Your task to perform on an android device: turn notification dots on Image 0: 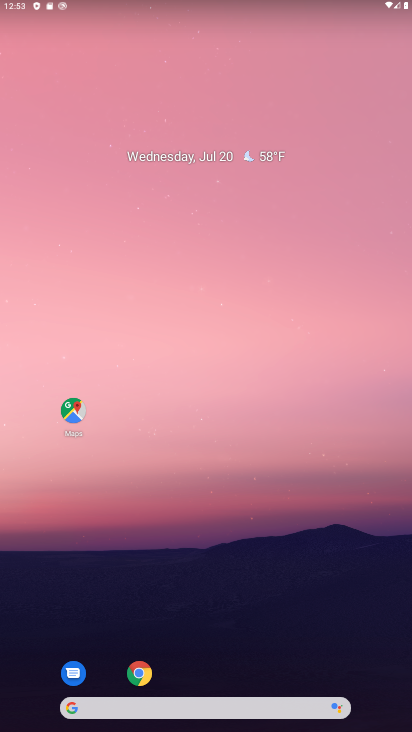
Step 0: drag from (327, 586) to (350, 203)
Your task to perform on an android device: turn notification dots on Image 1: 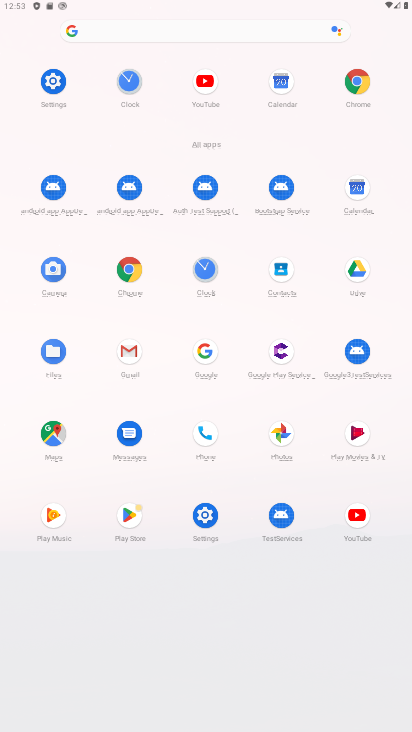
Step 1: click (205, 525)
Your task to perform on an android device: turn notification dots on Image 2: 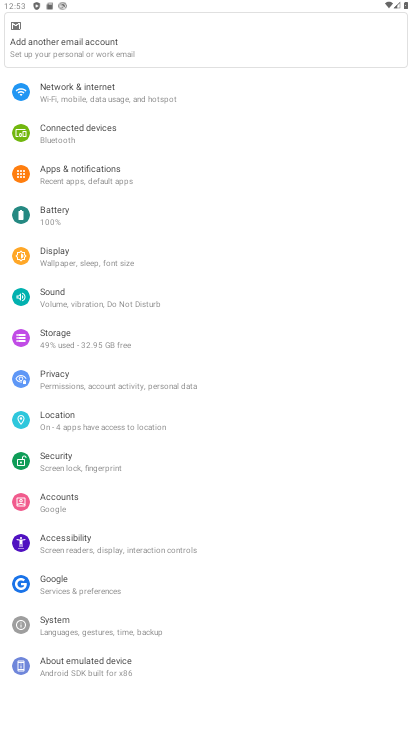
Step 2: click (79, 171)
Your task to perform on an android device: turn notification dots on Image 3: 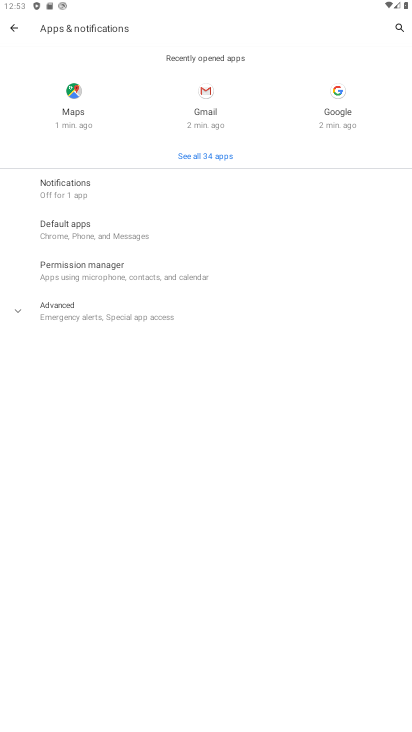
Step 3: click (87, 179)
Your task to perform on an android device: turn notification dots on Image 4: 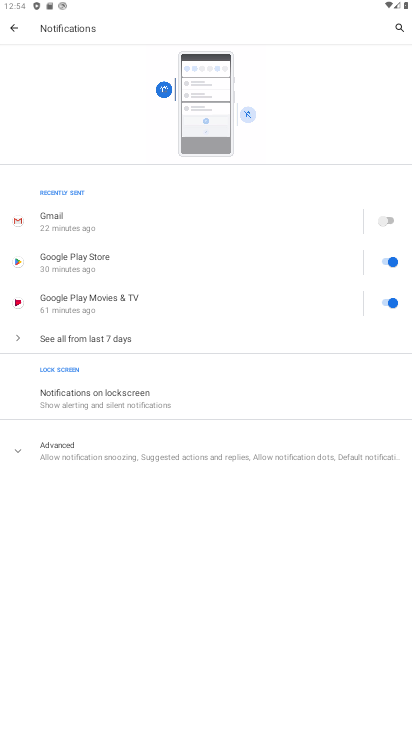
Step 4: click (186, 449)
Your task to perform on an android device: turn notification dots on Image 5: 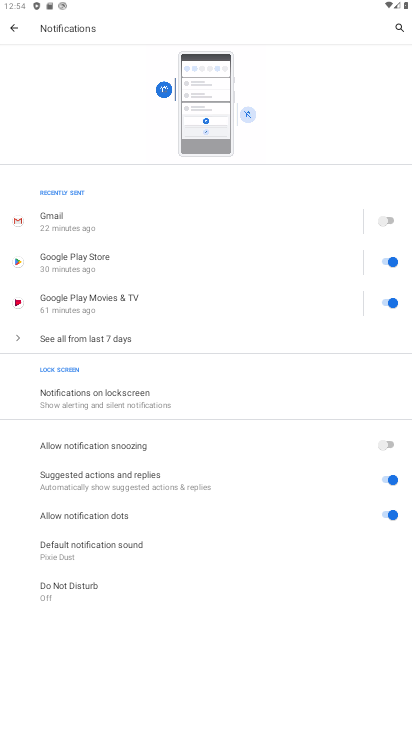
Step 5: task complete